Your task to perform on an android device: snooze an email in the gmail app Image 0: 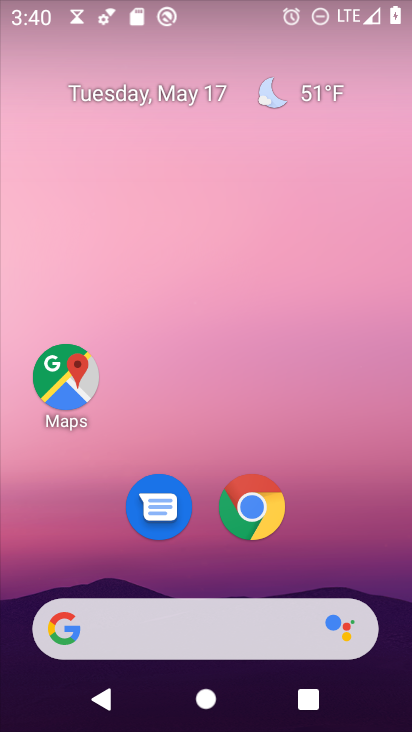
Step 0: drag from (319, 568) to (332, 49)
Your task to perform on an android device: snooze an email in the gmail app Image 1: 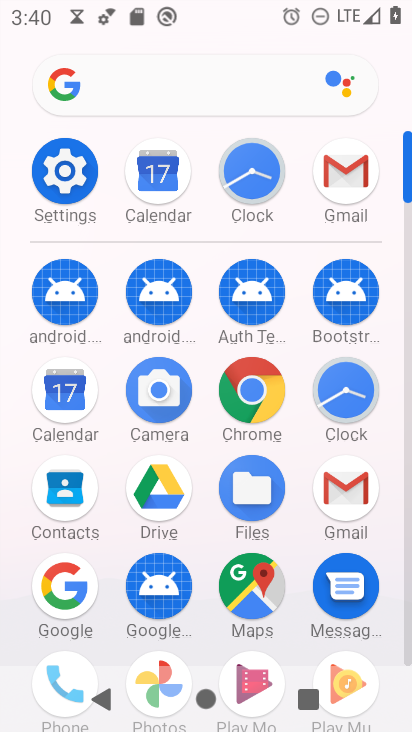
Step 1: click (328, 491)
Your task to perform on an android device: snooze an email in the gmail app Image 2: 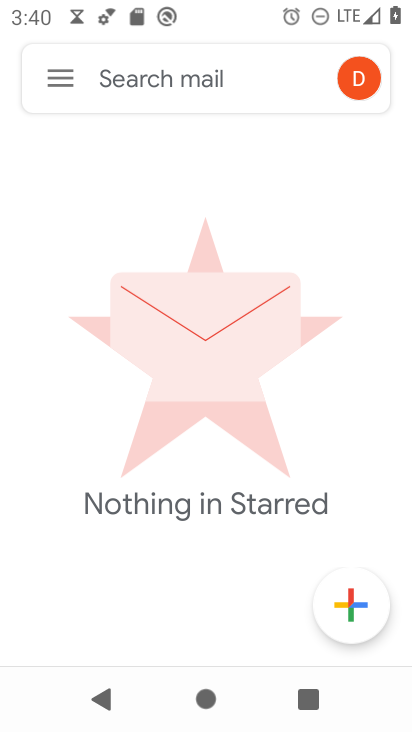
Step 2: click (58, 83)
Your task to perform on an android device: snooze an email in the gmail app Image 3: 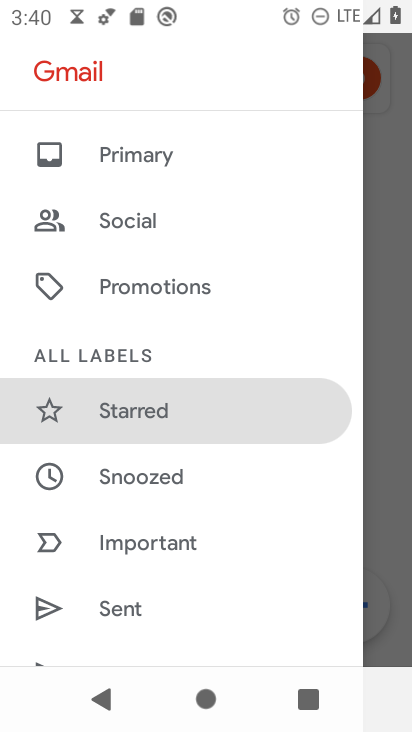
Step 3: drag from (151, 574) to (188, 307)
Your task to perform on an android device: snooze an email in the gmail app Image 4: 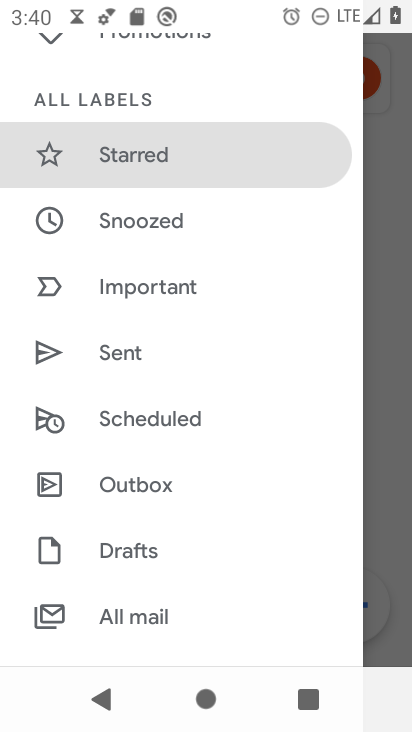
Step 4: click (119, 628)
Your task to perform on an android device: snooze an email in the gmail app Image 5: 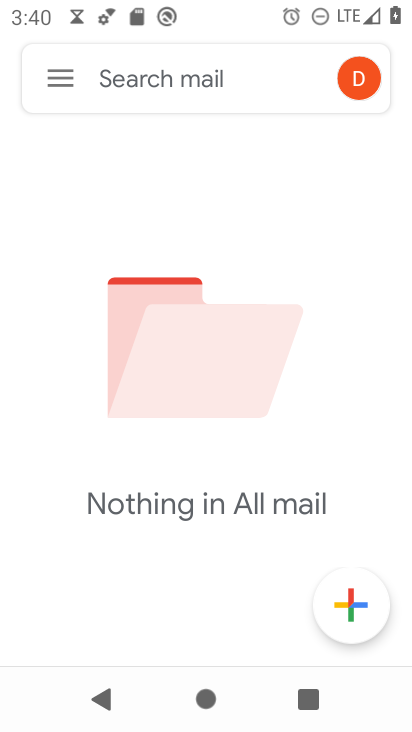
Step 5: task complete